Your task to perform on an android device: refresh tabs in the chrome app Image 0: 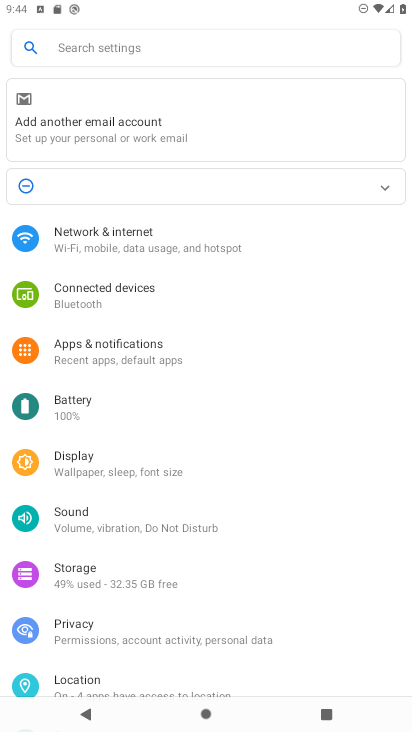
Step 0: press home button
Your task to perform on an android device: refresh tabs in the chrome app Image 1: 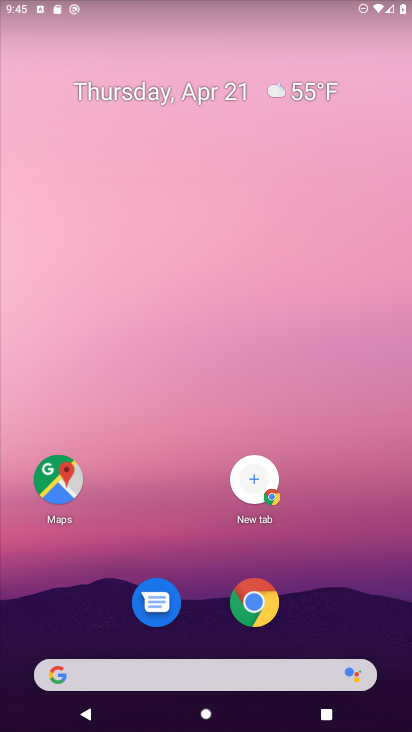
Step 1: click (262, 609)
Your task to perform on an android device: refresh tabs in the chrome app Image 2: 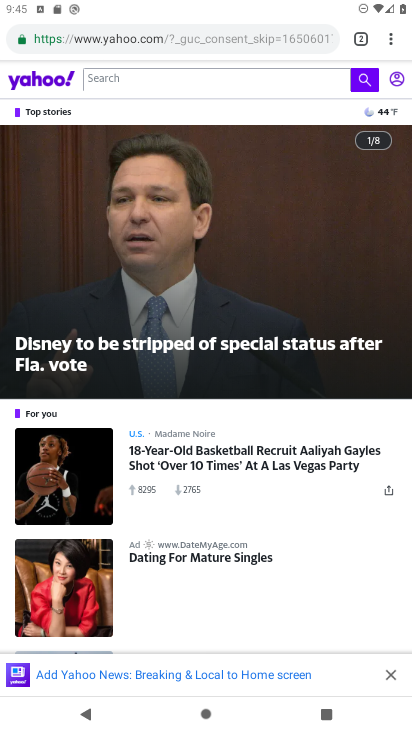
Step 2: click (388, 43)
Your task to perform on an android device: refresh tabs in the chrome app Image 3: 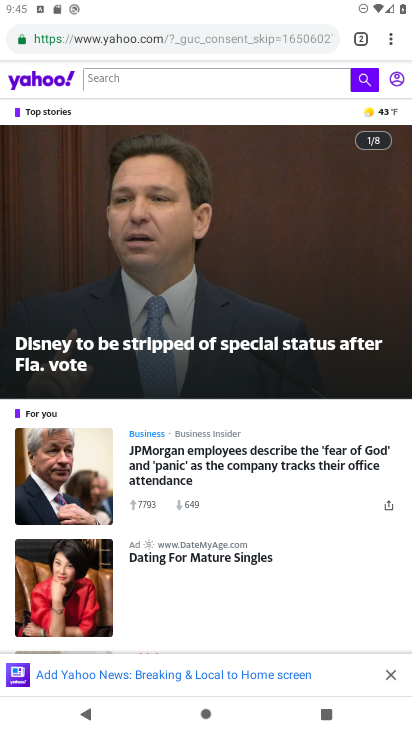
Step 3: task complete